Your task to perform on an android device: Go to ESPN.com Image 0: 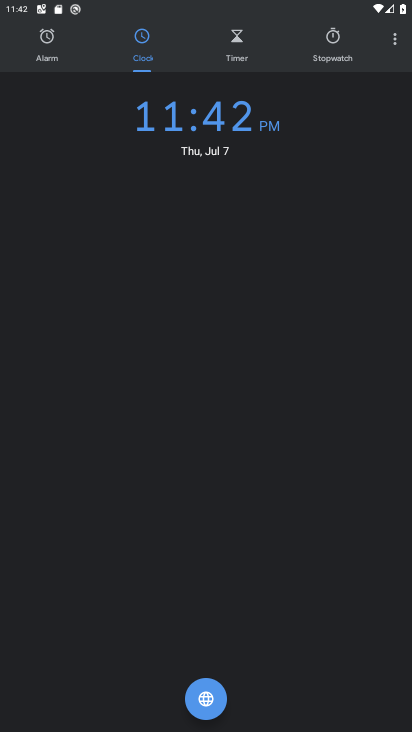
Step 0: press home button
Your task to perform on an android device: Go to ESPN.com Image 1: 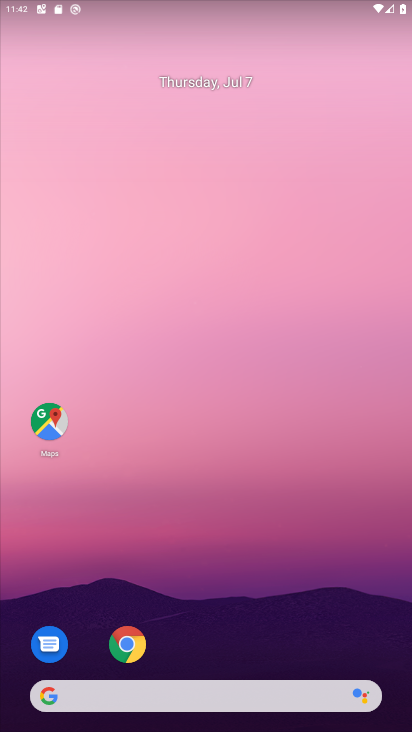
Step 1: click (87, 687)
Your task to perform on an android device: Go to ESPN.com Image 2: 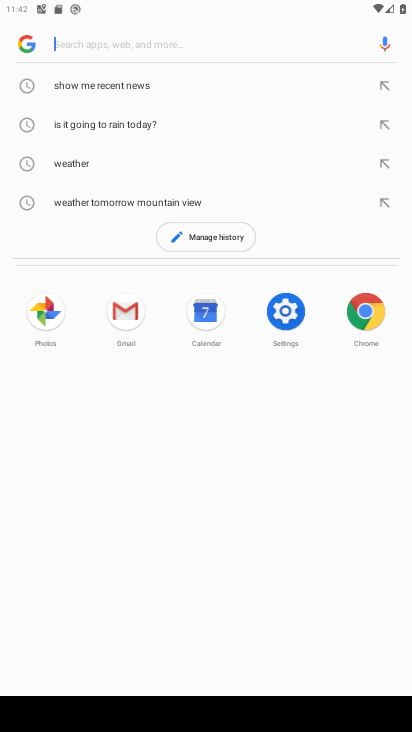
Step 2: type "ESPN.com"
Your task to perform on an android device: Go to ESPN.com Image 3: 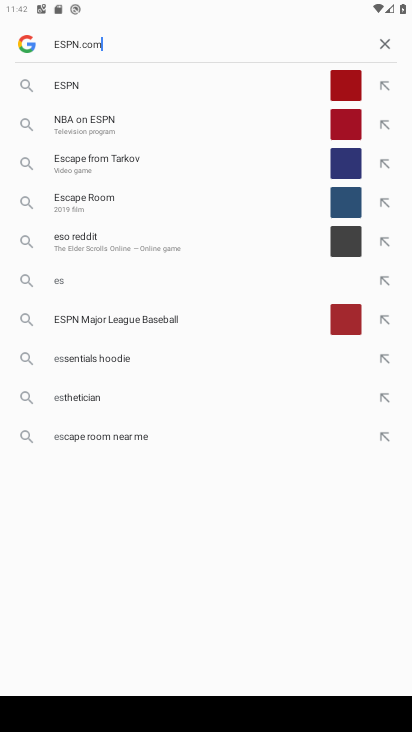
Step 3: type ""
Your task to perform on an android device: Go to ESPN.com Image 4: 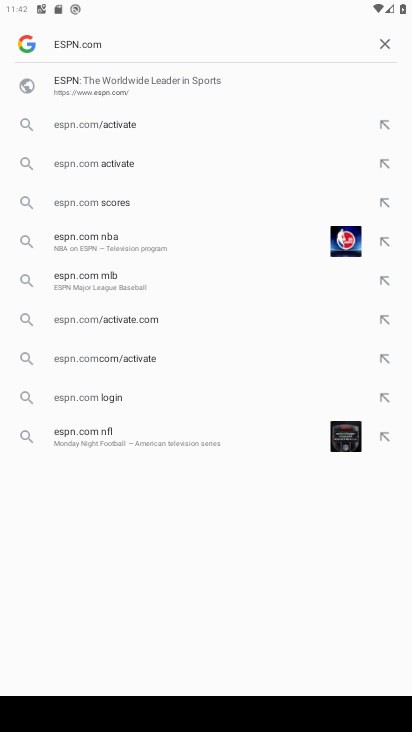
Step 4: click (94, 74)
Your task to perform on an android device: Go to ESPN.com Image 5: 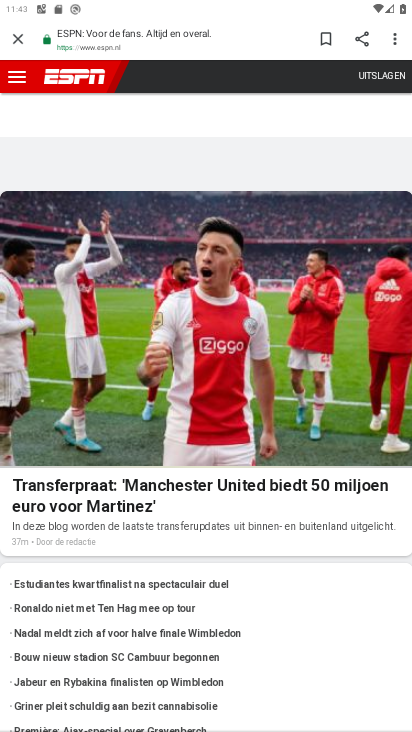
Step 5: task complete